Your task to perform on an android device: When is my next meeting? Image 0: 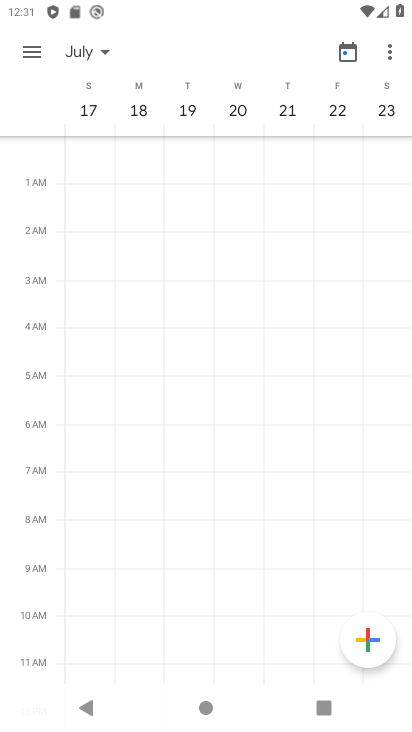
Step 0: press home button
Your task to perform on an android device: When is my next meeting? Image 1: 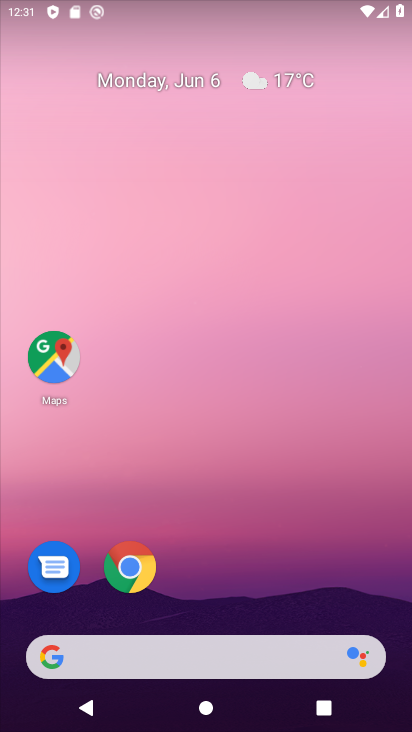
Step 1: drag from (227, 725) to (230, 120)
Your task to perform on an android device: When is my next meeting? Image 2: 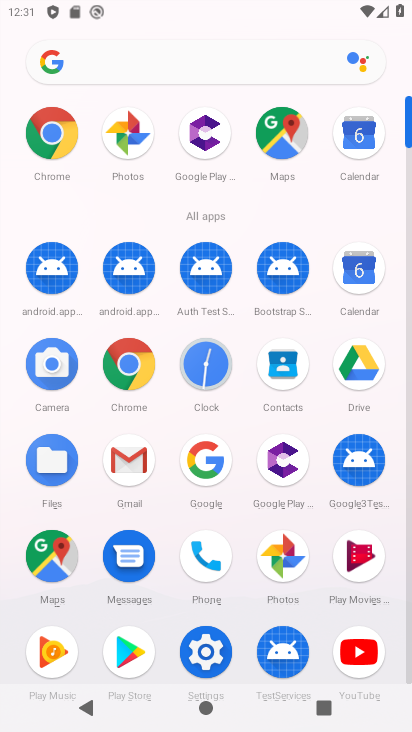
Step 2: click (362, 266)
Your task to perform on an android device: When is my next meeting? Image 3: 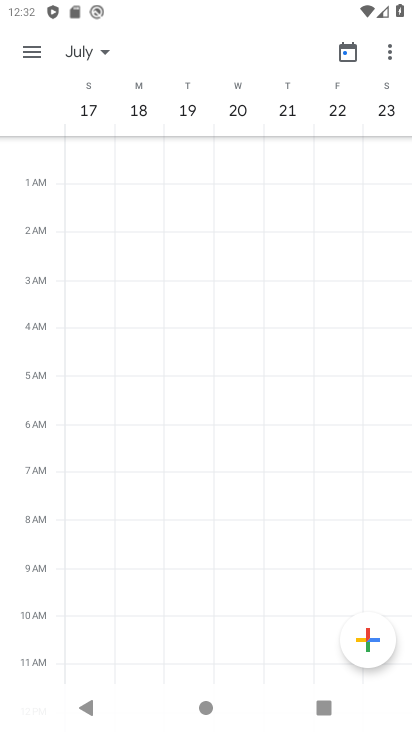
Step 3: click (106, 47)
Your task to perform on an android device: When is my next meeting? Image 4: 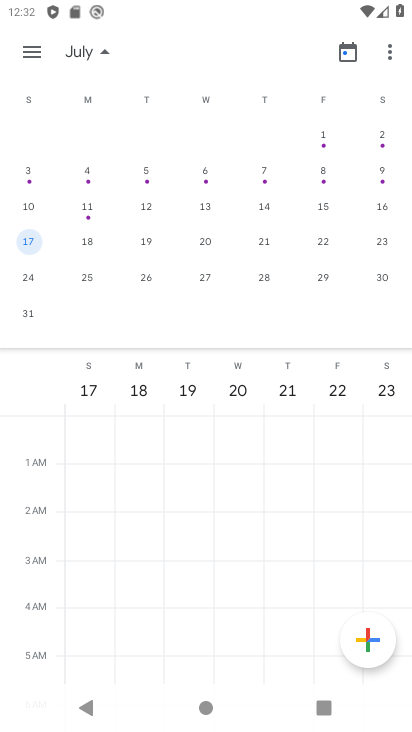
Step 4: drag from (56, 229) to (329, 207)
Your task to perform on an android device: When is my next meeting? Image 5: 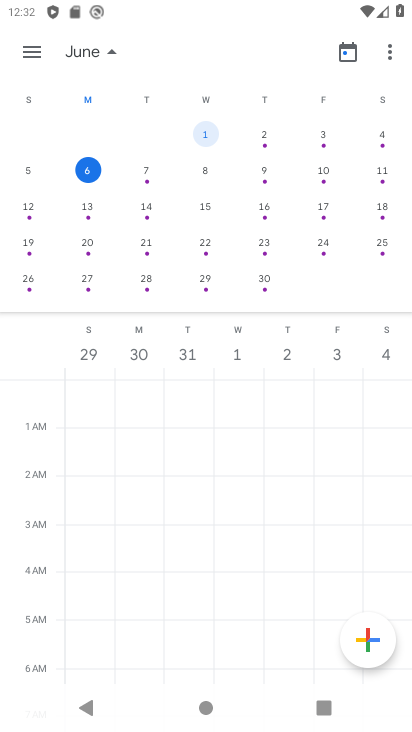
Step 5: click (146, 170)
Your task to perform on an android device: When is my next meeting? Image 6: 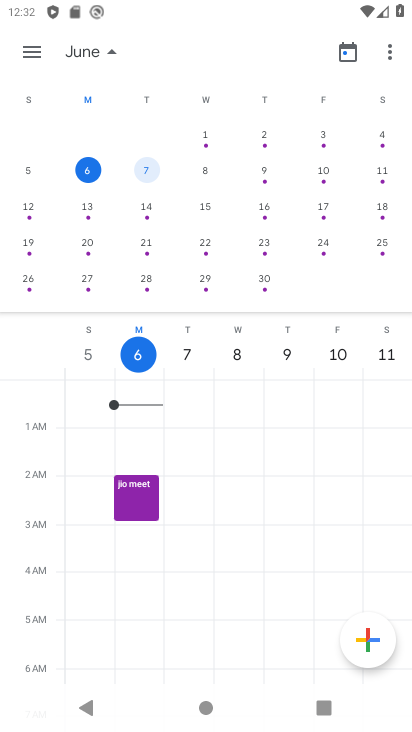
Step 6: click (146, 170)
Your task to perform on an android device: When is my next meeting? Image 7: 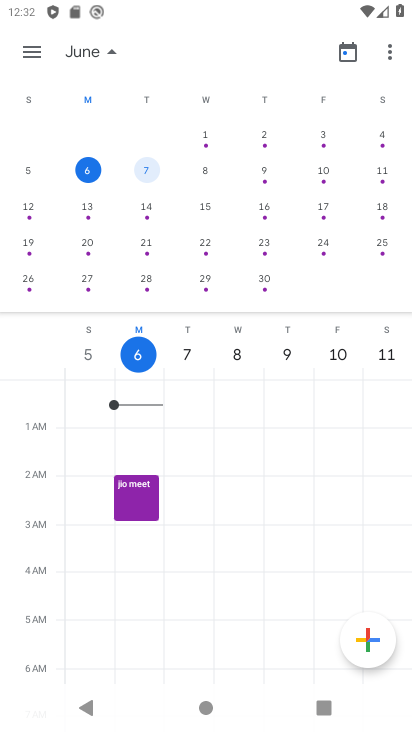
Step 7: click (110, 49)
Your task to perform on an android device: When is my next meeting? Image 8: 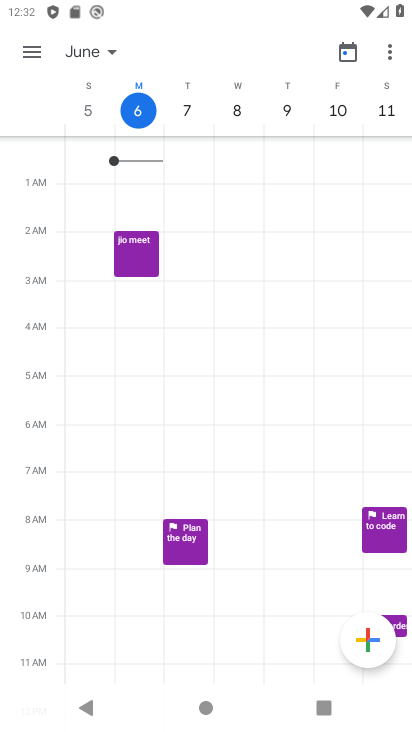
Step 8: click (124, 103)
Your task to perform on an android device: When is my next meeting? Image 9: 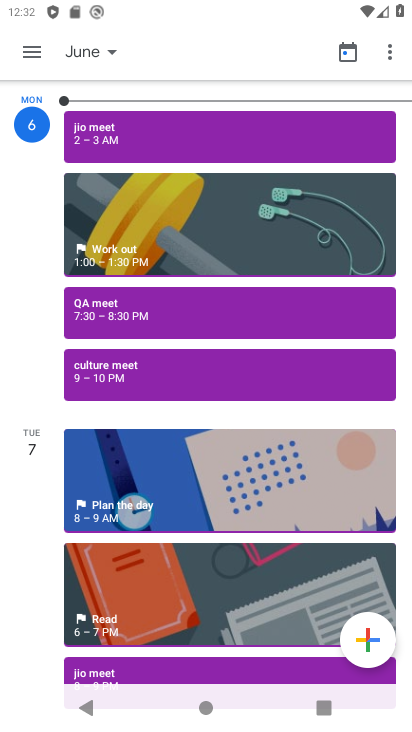
Step 9: task complete